Your task to perform on an android device: check the backup settings in the google photos Image 0: 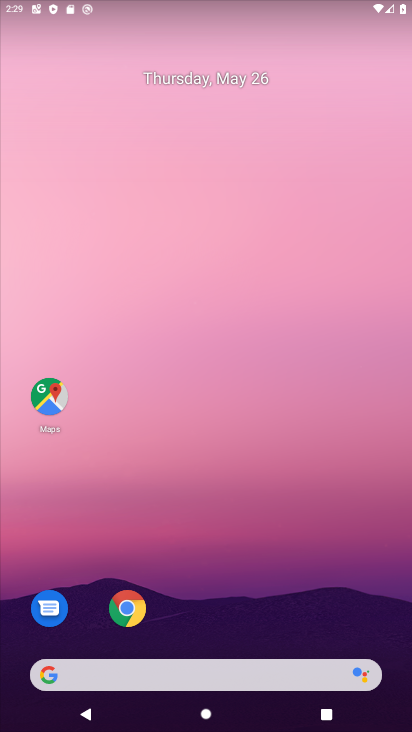
Step 0: drag from (240, 555) to (290, 82)
Your task to perform on an android device: check the backup settings in the google photos Image 1: 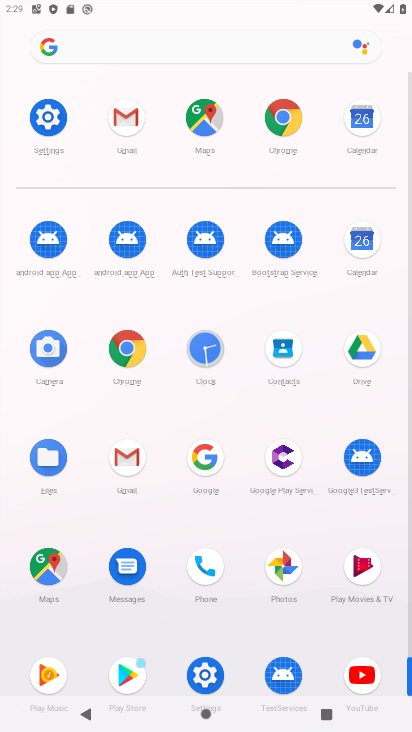
Step 1: click (277, 564)
Your task to perform on an android device: check the backup settings in the google photos Image 2: 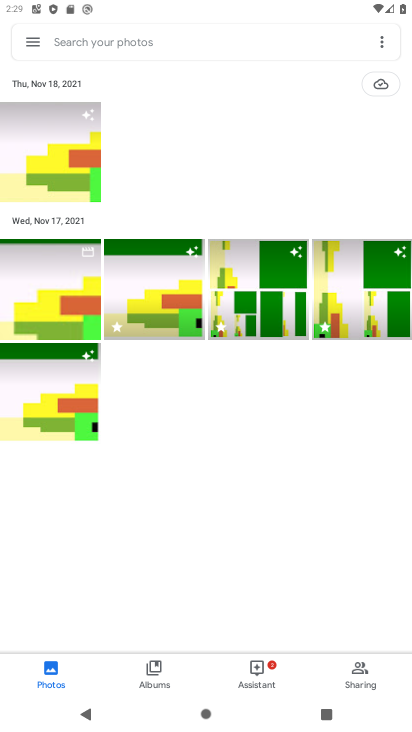
Step 2: click (40, 33)
Your task to perform on an android device: check the backup settings in the google photos Image 3: 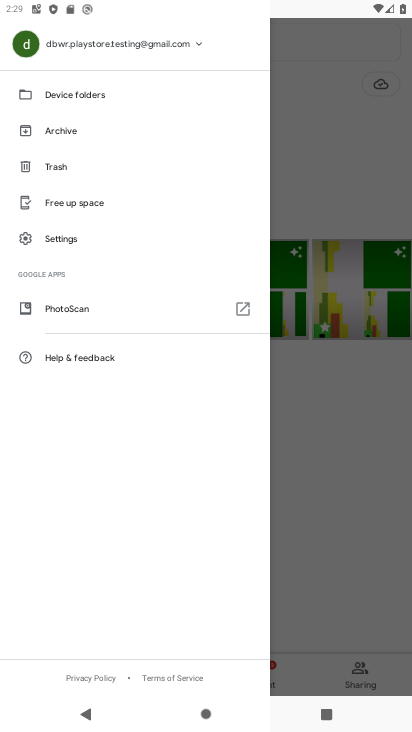
Step 3: click (31, 234)
Your task to perform on an android device: check the backup settings in the google photos Image 4: 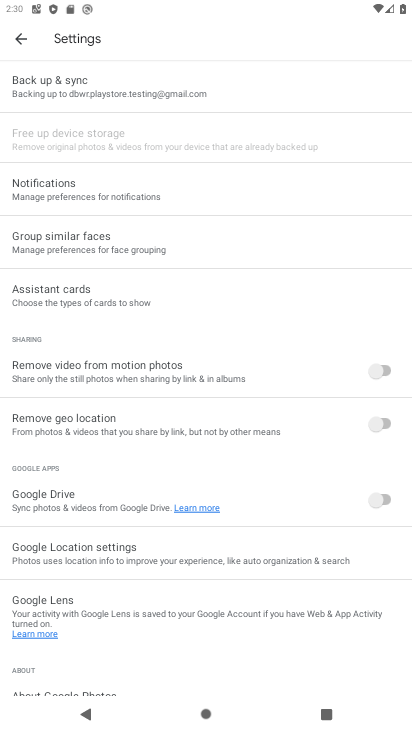
Step 4: click (128, 94)
Your task to perform on an android device: check the backup settings in the google photos Image 5: 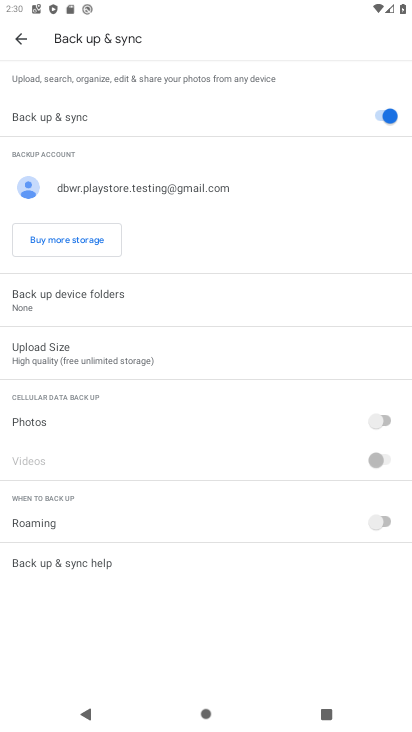
Step 5: task complete